Your task to perform on an android device: What's on my calendar today? Image 0: 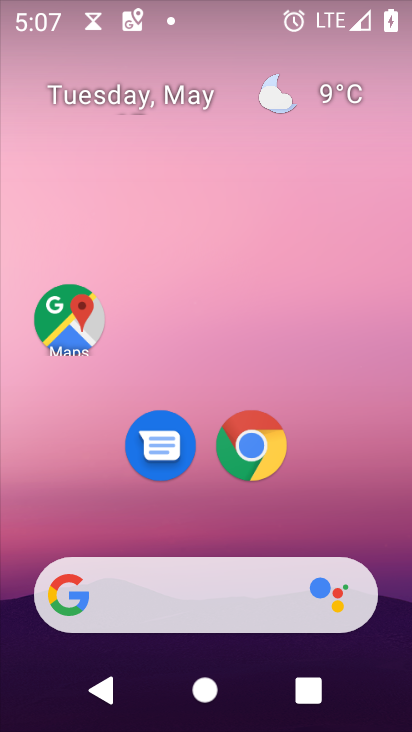
Step 0: drag from (243, 566) to (264, 105)
Your task to perform on an android device: What's on my calendar today? Image 1: 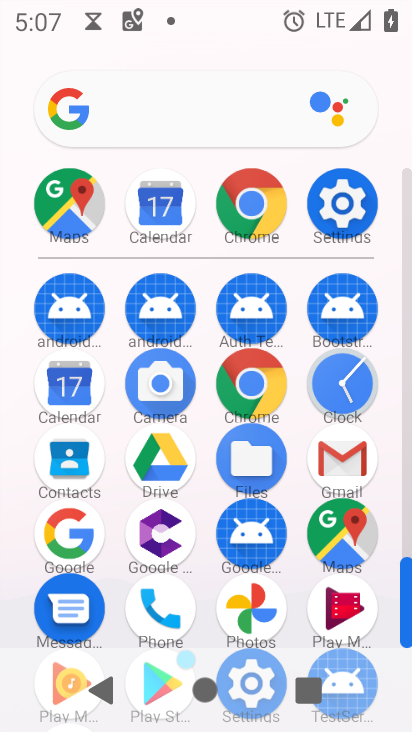
Step 1: click (84, 378)
Your task to perform on an android device: What's on my calendar today? Image 2: 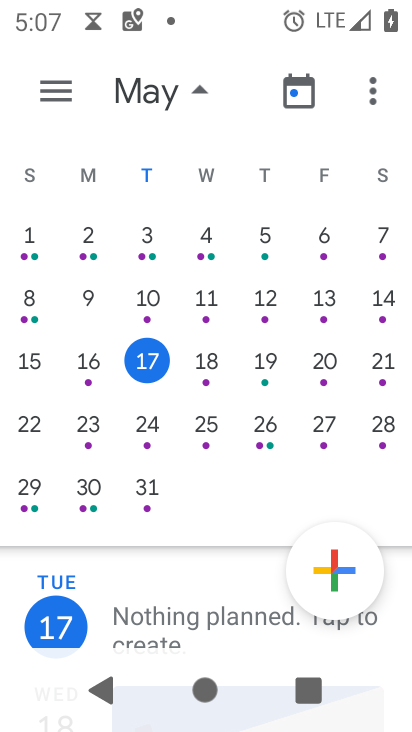
Step 2: click (152, 351)
Your task to perform on an android device: What's on my calendar today? Image 3: 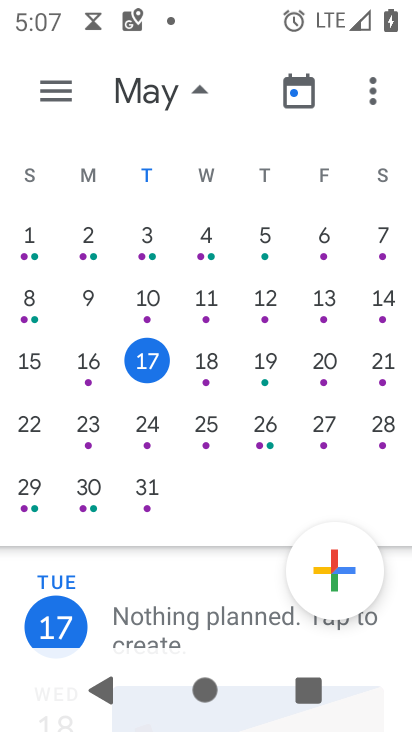
Step 3: task complete